Your task to perform on an android device: turn pop-ups off in chrome Image 0: 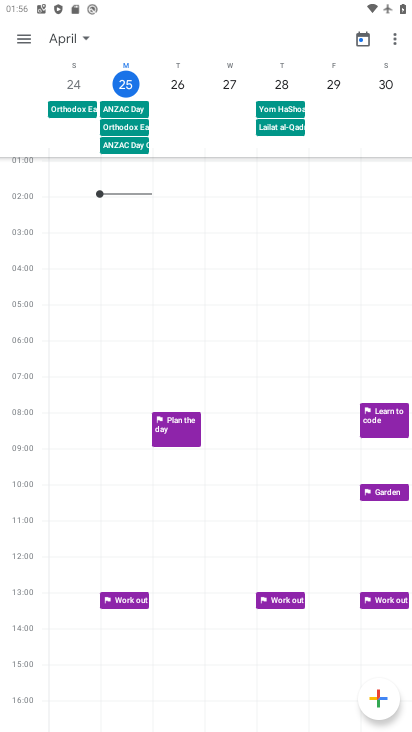
Step 0: task complete